Your task to perform on an android device: Go to display settings Image 0: 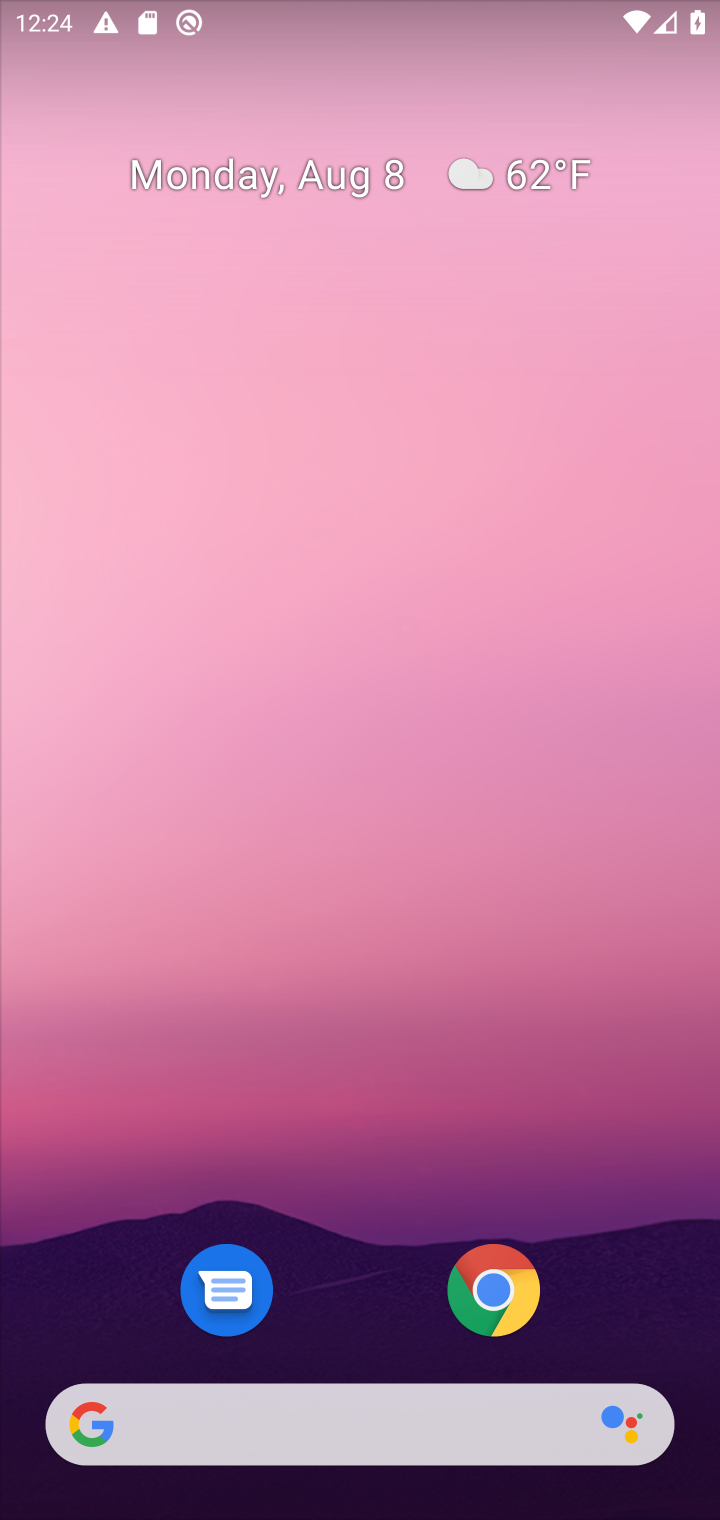
Step 0: drag from (349, 967) to (477, 389)
Your task to perform on an android device: Go to display settings Image 1: 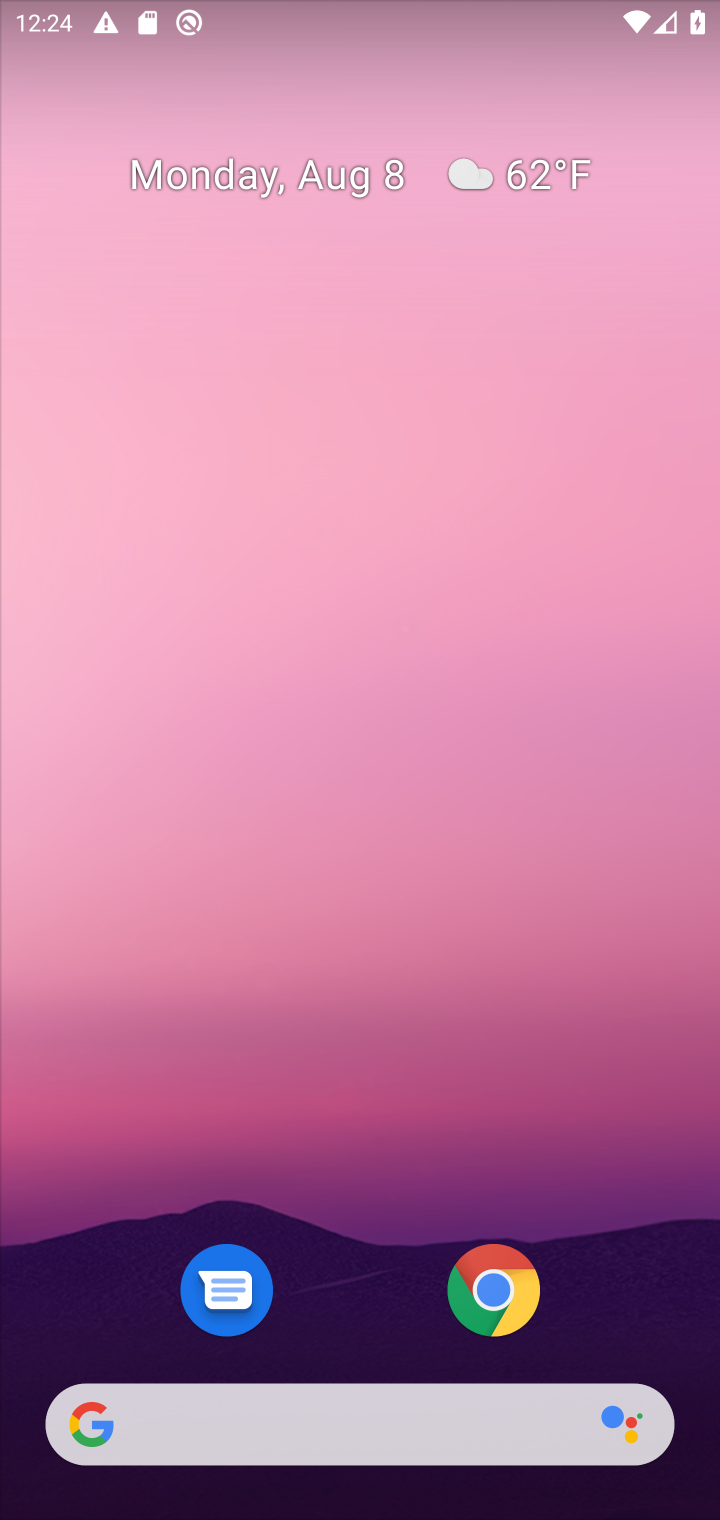
Step 1: drag from (330, 1143) to (419, 152)
Your task to perform on an android device: Go to display settings Image 2: 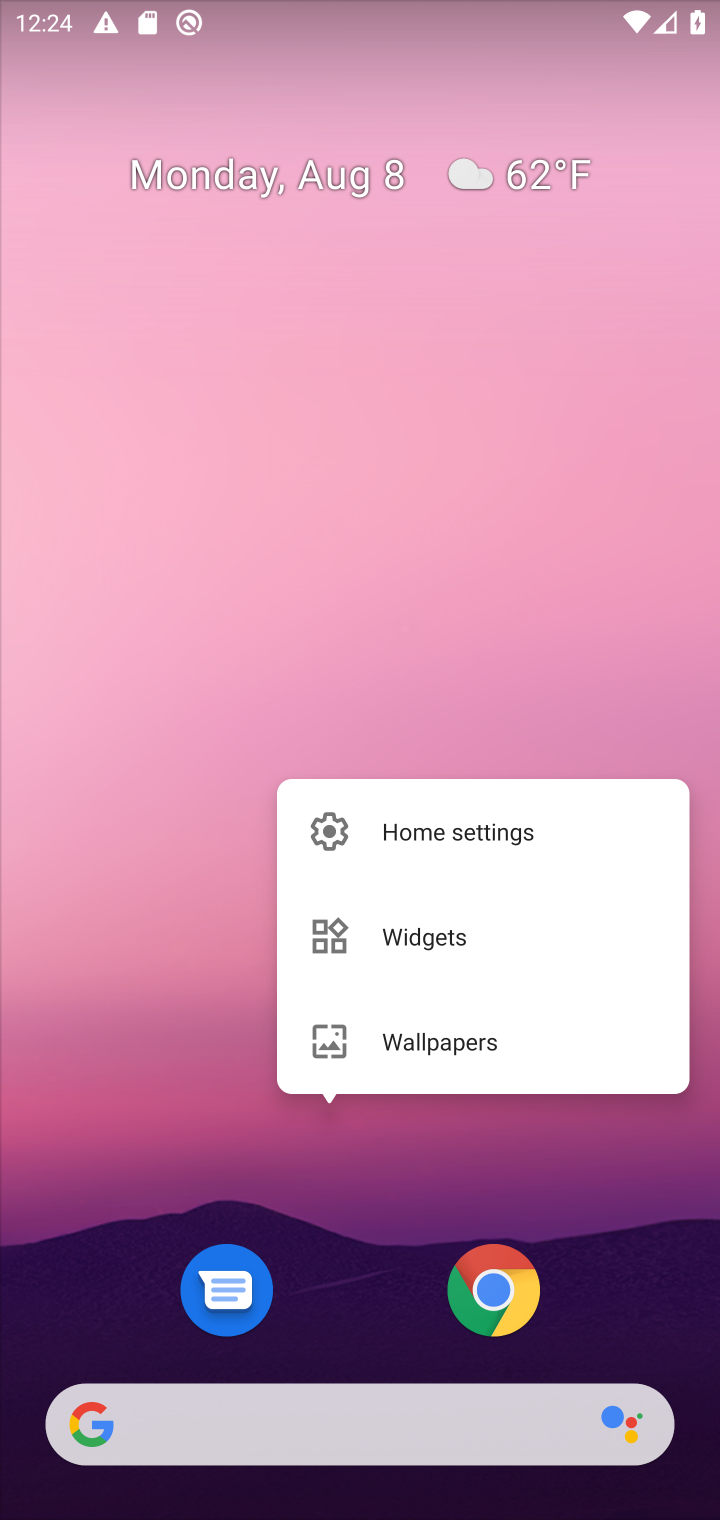
Step 2: click (344, 1240)
Your task to perform on an android device: Go to display settings Image 3: 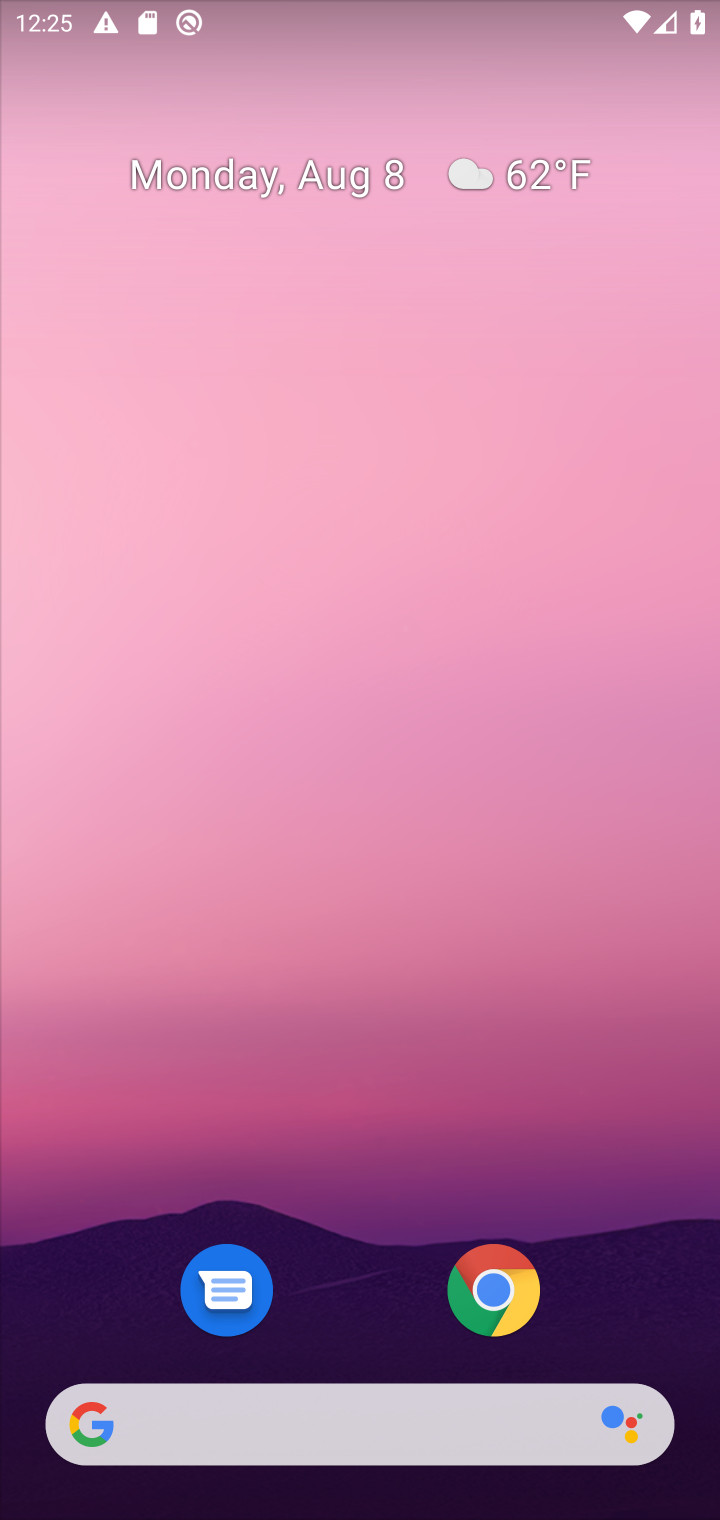
Step 3: drag from (301, 1267) to (355, 409)
Your task to perform on an android device: Go to display settings Image 4: 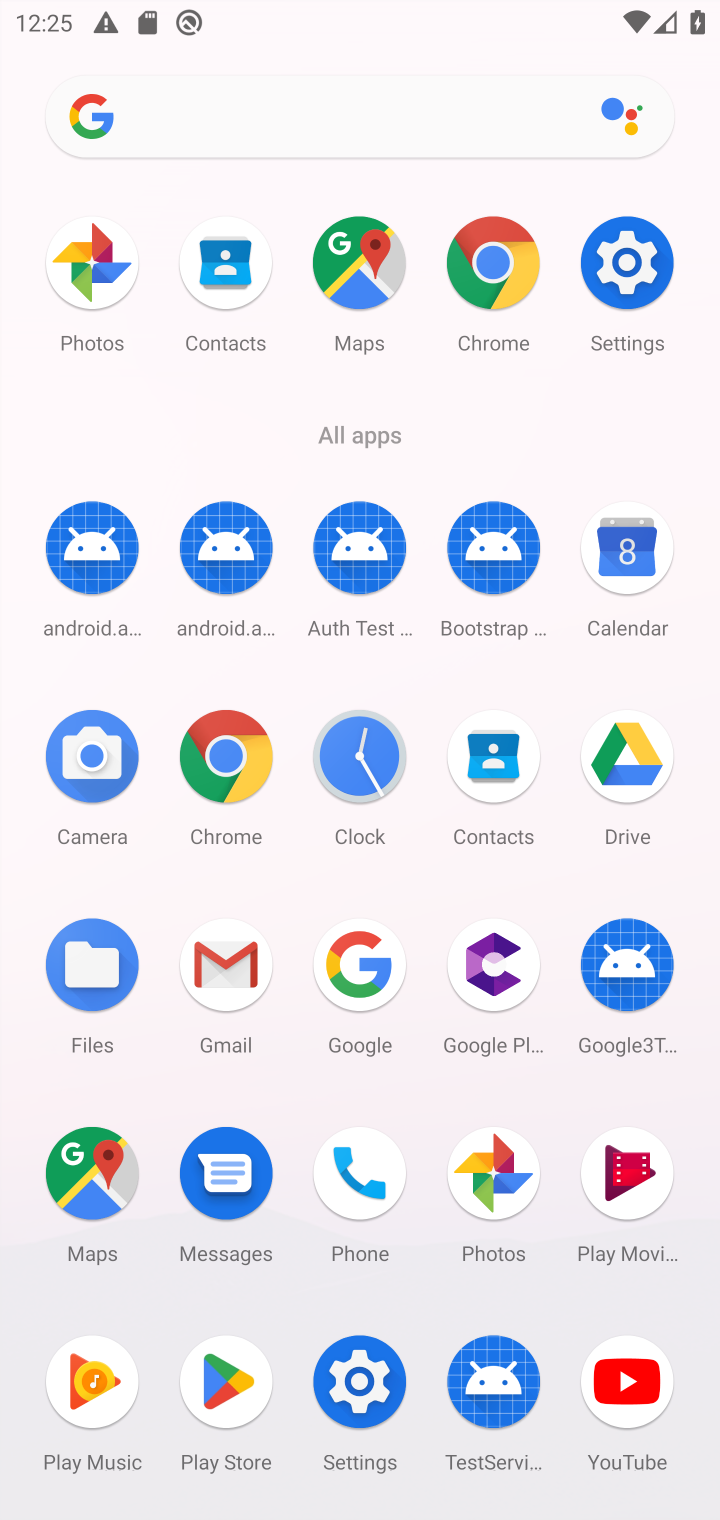
Step 4: click (373, 1390)
Your task to perform on an android device: Go to display settings Image 5: 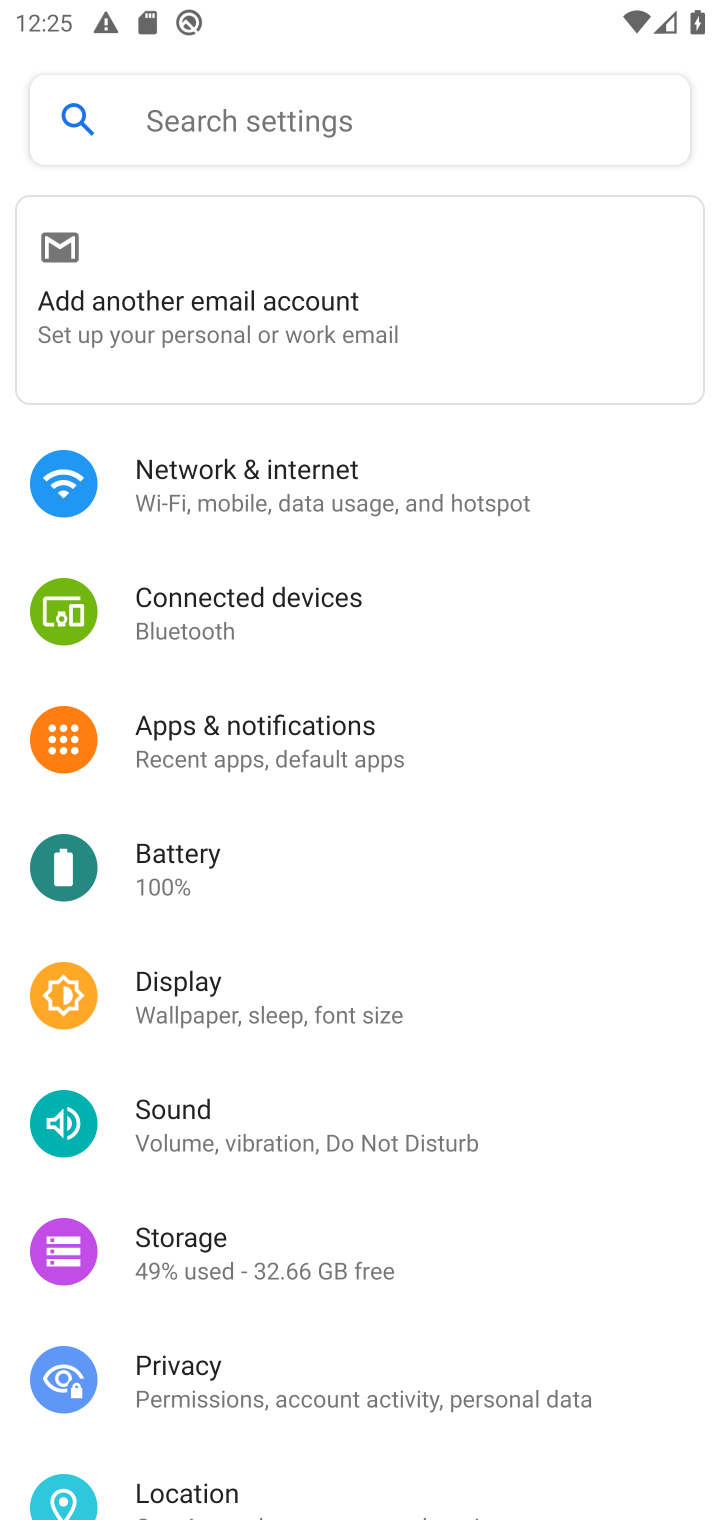
Step 5: click (245, 999)
Your task to perform on an android device: Go to display settings Image 6: 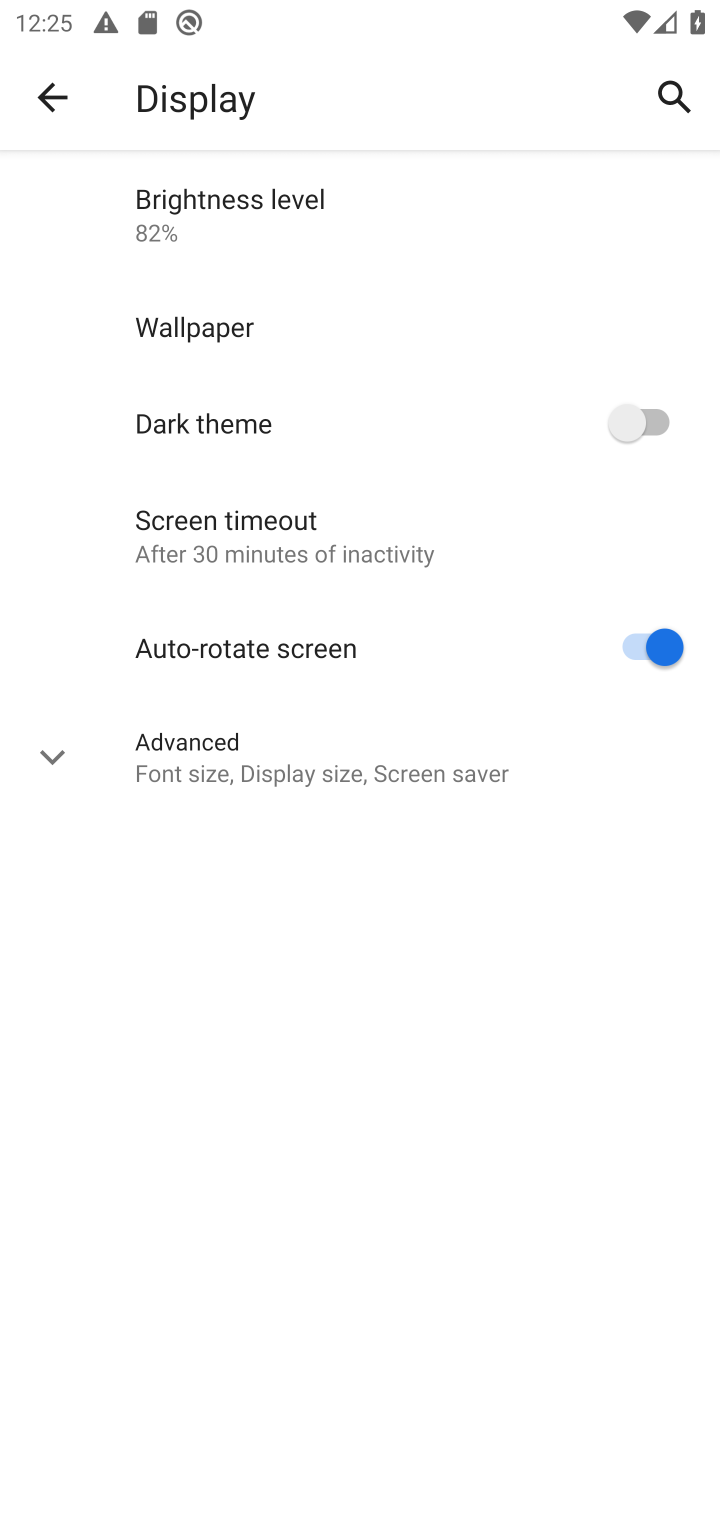
Step 6: task complete